Your task to perform on an android device: delete browsing data in the chrome app Image 0: 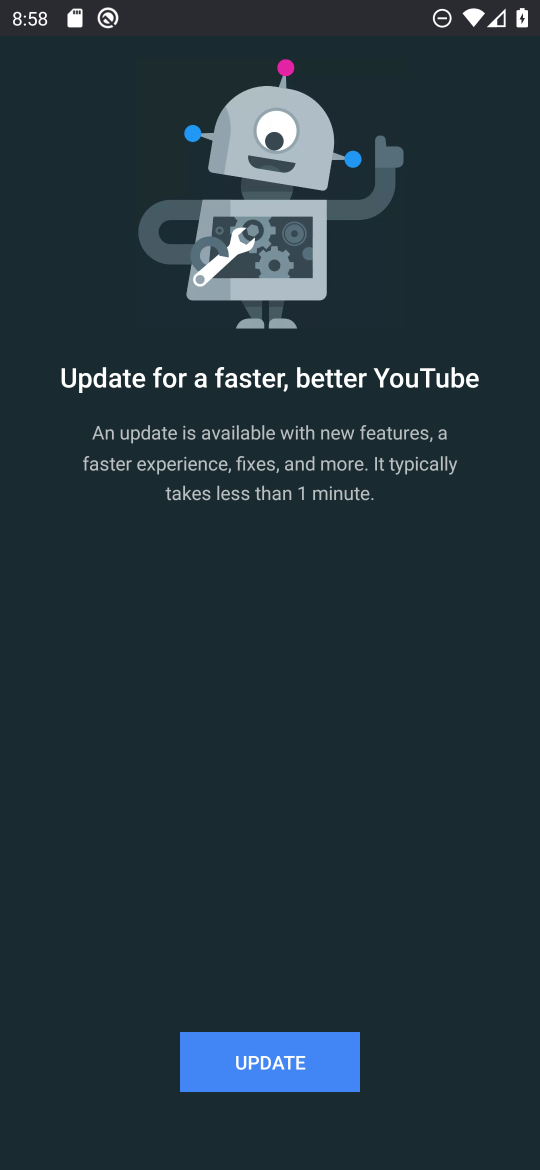
Step 0: press home button
Your task to perform on an android device: delete browsing data in the chrome app Image 1: 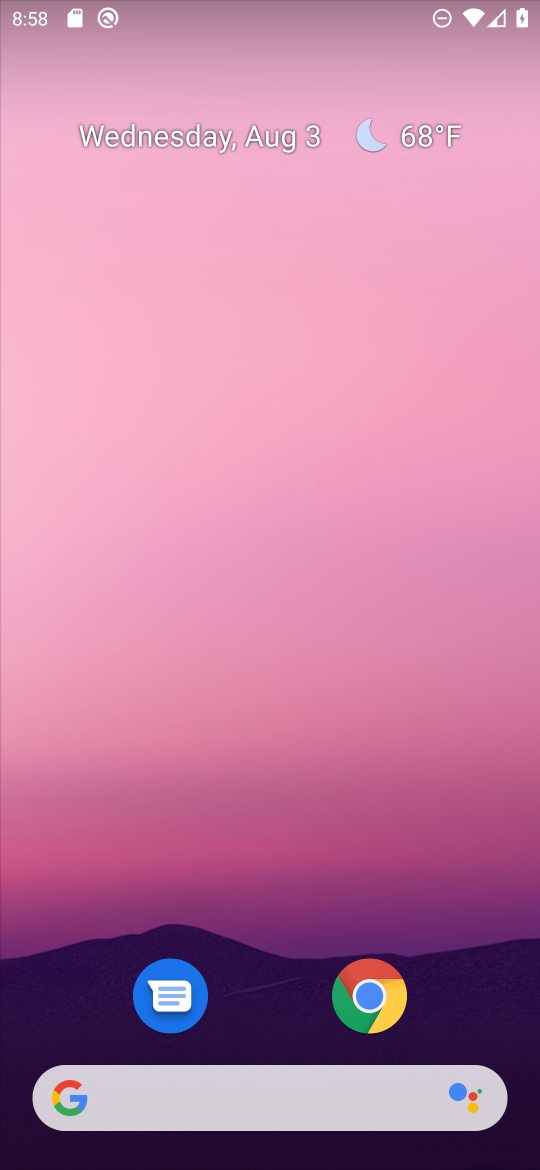
Step 1: click (372, 988)
Your task to perform on an android device: delete browsing data in the chrome app Image 2: 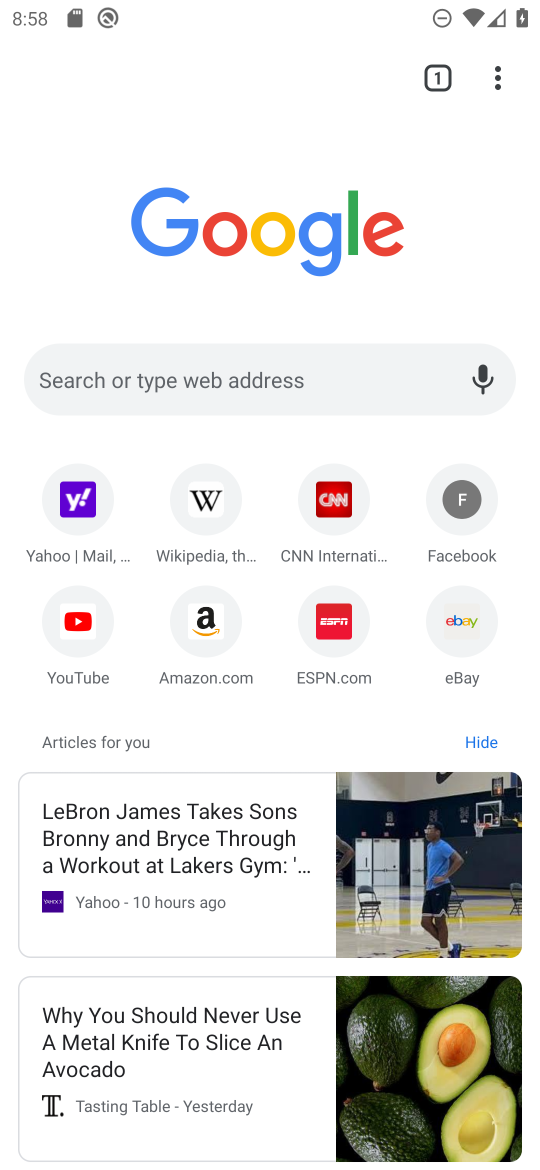
Step 2: click (501, 78)
Your task to perform on an android device: delete browsing data in the chrome app Image 3: 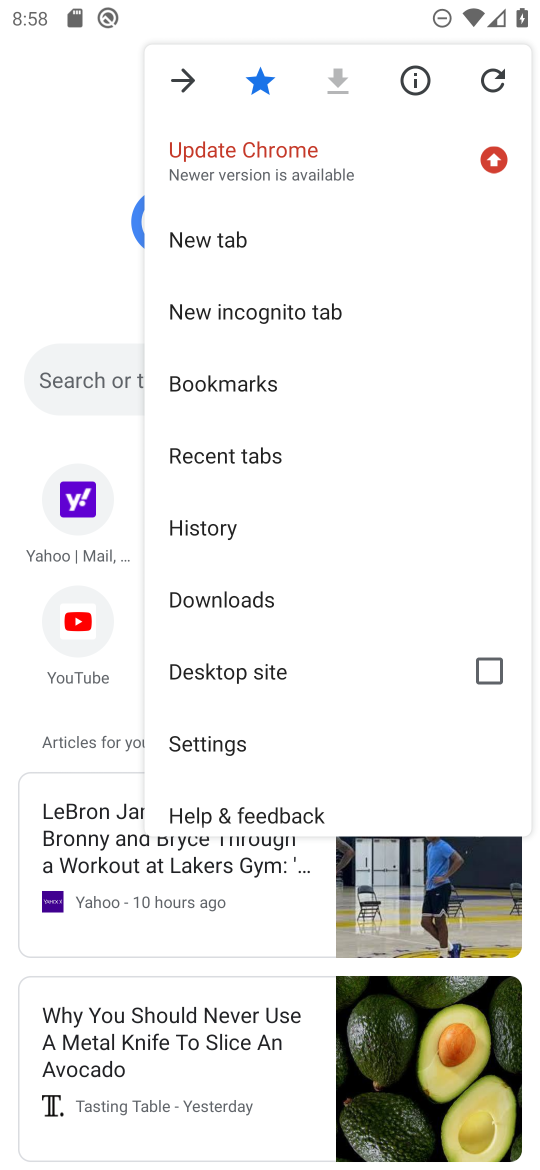
Step 3: click (227, 520)
Your task to perform on an android device: delete browsing data in the chrome app Image 4: 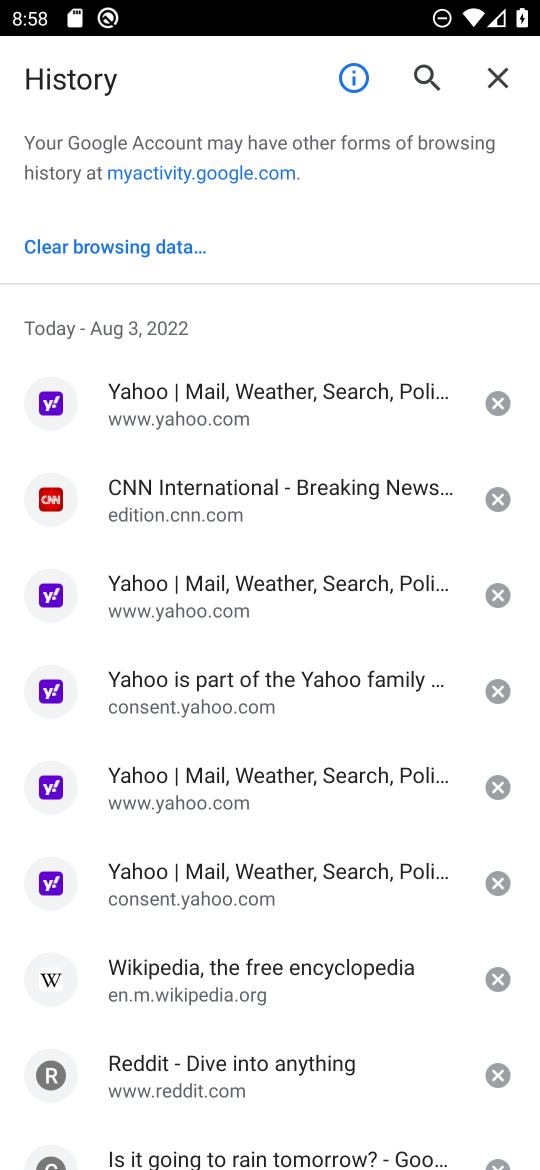
Step 4: click (145, 245)
Your task to perform on an android device: delete browsing data in the chrome app Image 5: 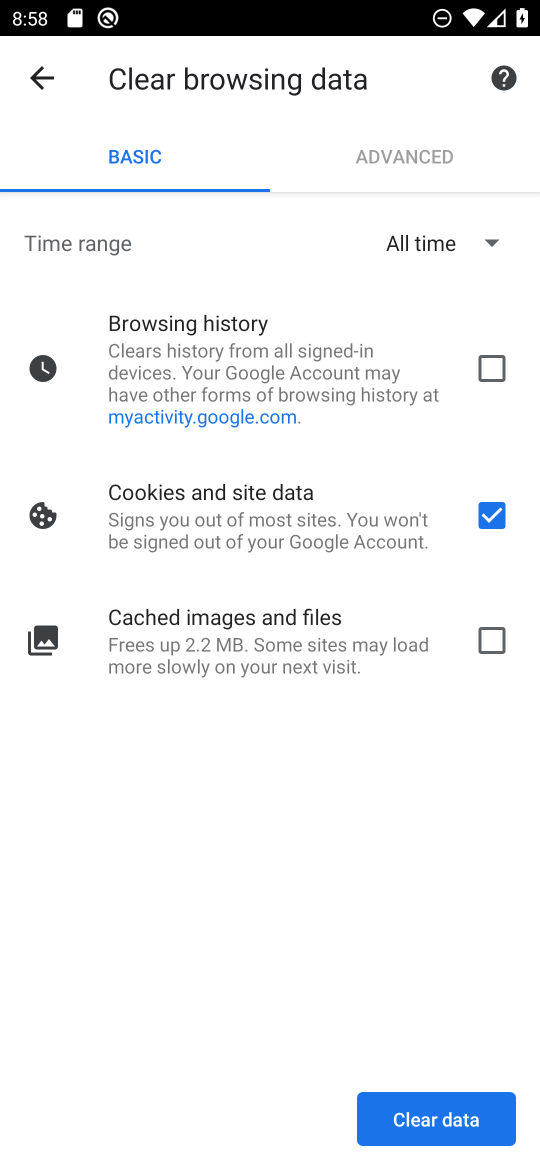
Step 5: click (488, 370)
Your task to perform on an android device: delete browsing data in the chrome app Image 6: 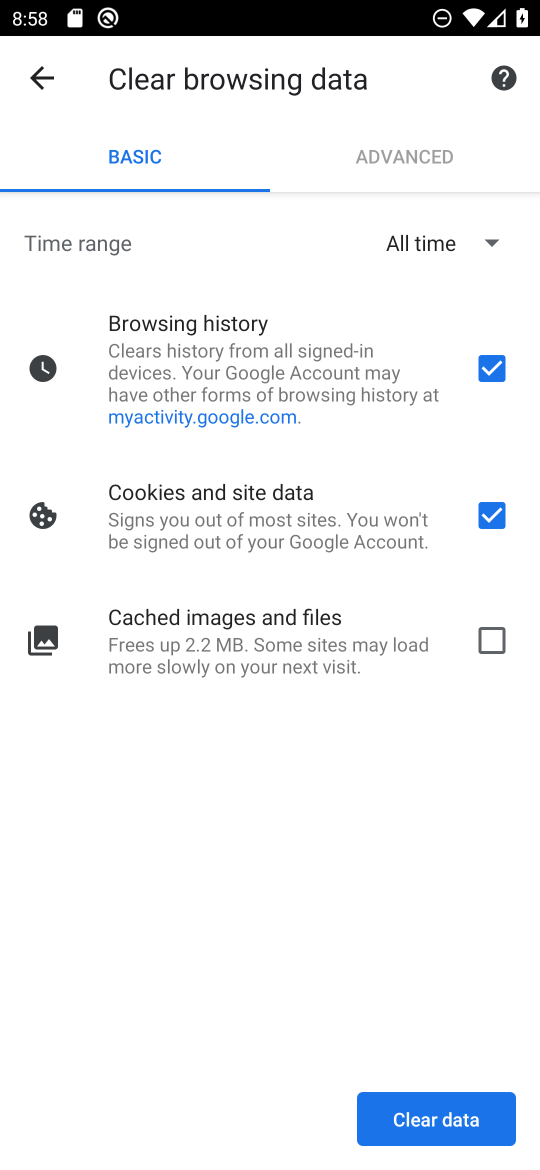
Step 6: click (492, 636)
Your task to perform on an android device: delete browsing data in the chrome app Image 7: 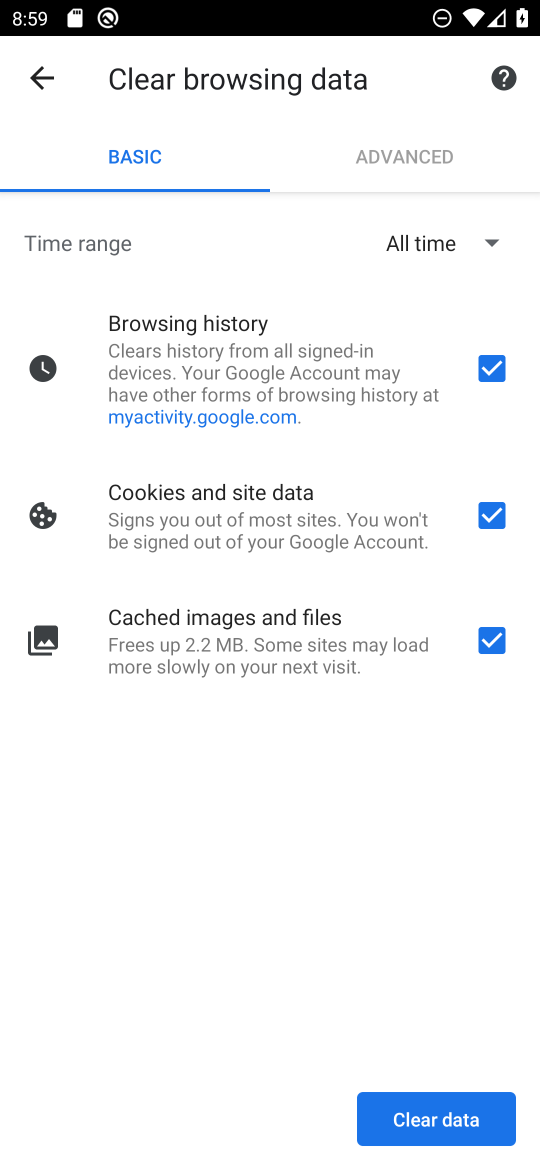
Step 7: click (455, 1117)
Your task to perform on an android device: delete browsing data in the chrome app Image 8: 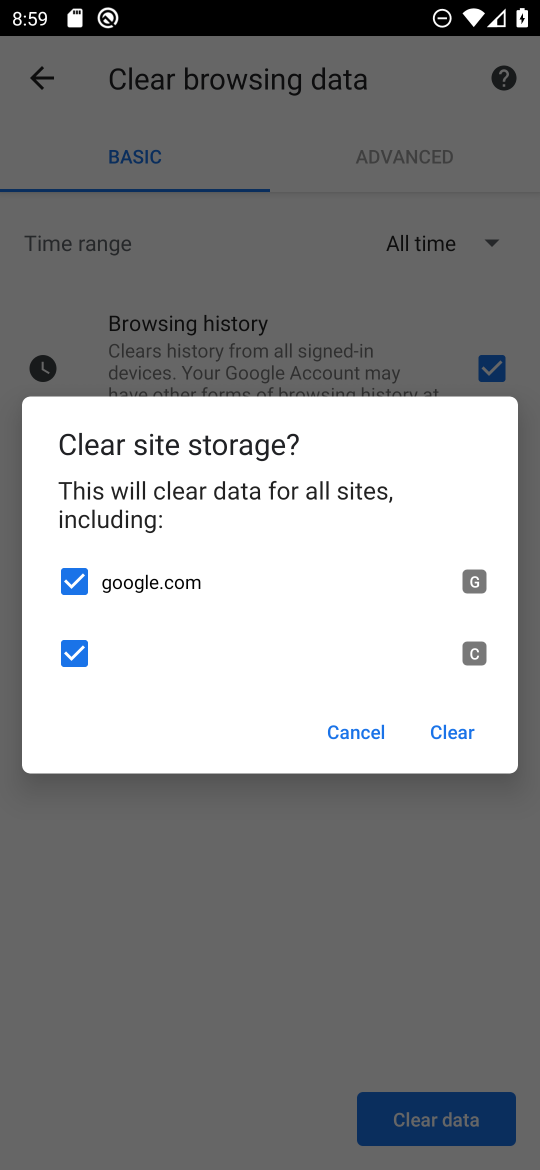
Step 8: click (460, 735)
Your task to perform on an android device: delete browsing data in the chrome app Image 9: 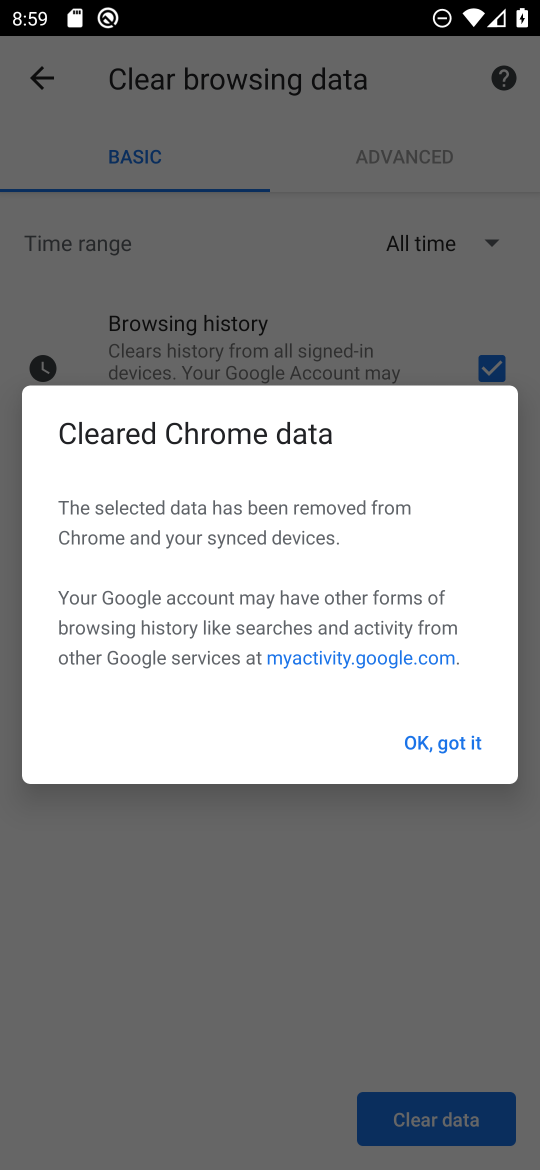
Step 9: click (461, 731)
Your task to perform on an android device: delete browsing data in the chrome app Image 10: 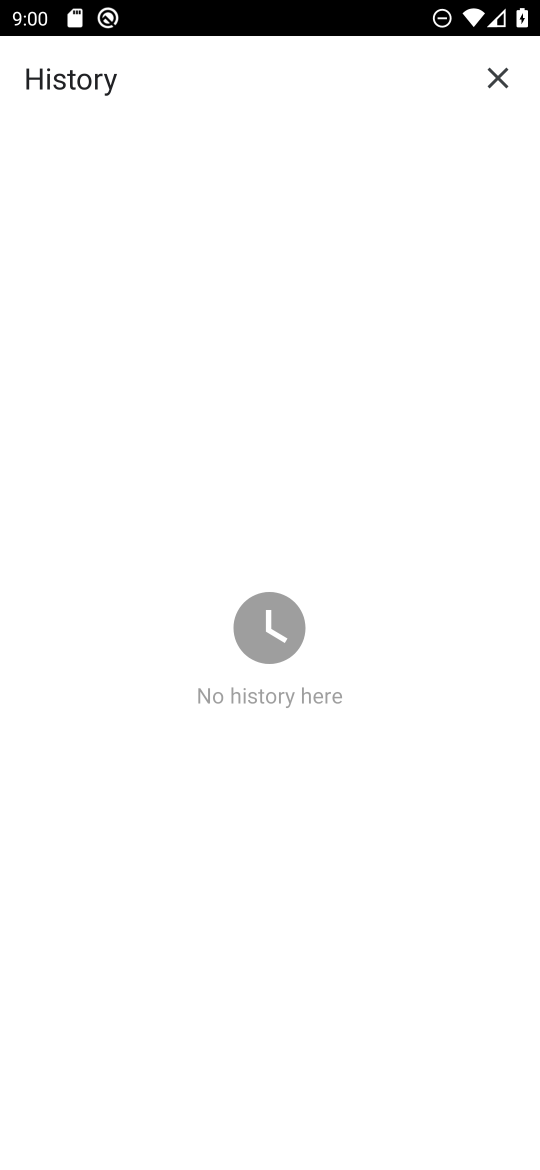
Step 10: task complete